Your task to perform on an android device: Go to Android settings Image 0: 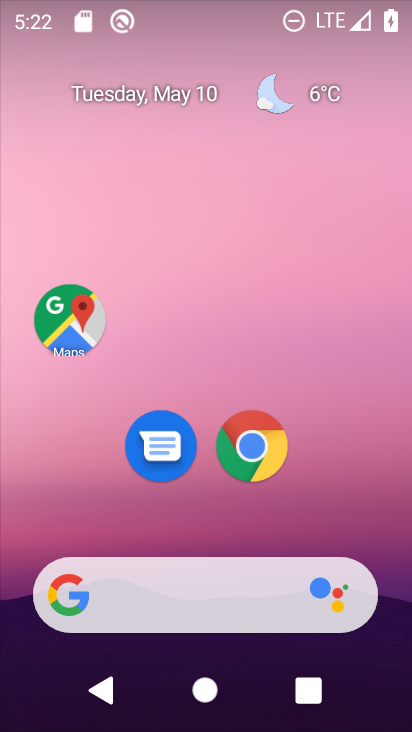
Step 0: drag from (233, 513) to (211, 113)
Your task to perform on an android device: Go to Android settings Image 1: 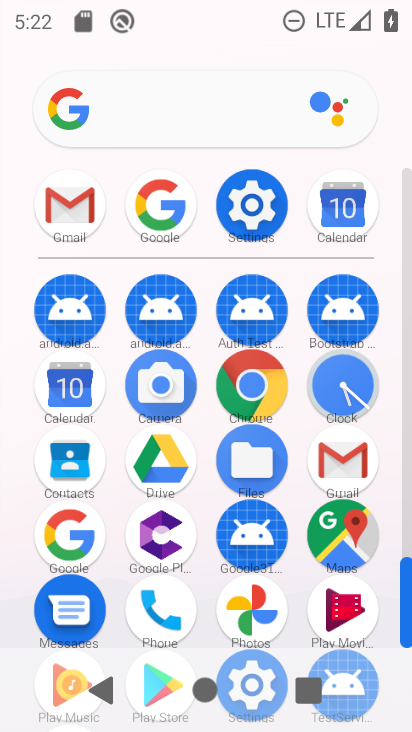
Step 1: click (257, 221)
Your task to perform on an android device: Go to Android settings Image 2: 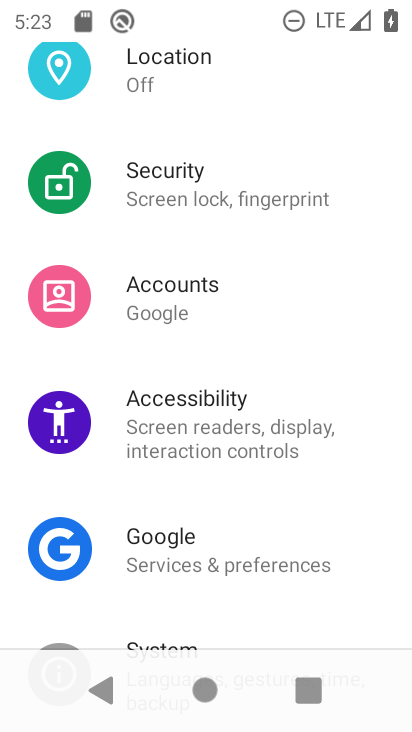
Step 2: drag from (214, 522) to (184, 2)
Your task to perform on an android device: Go to Android settings Image 3: 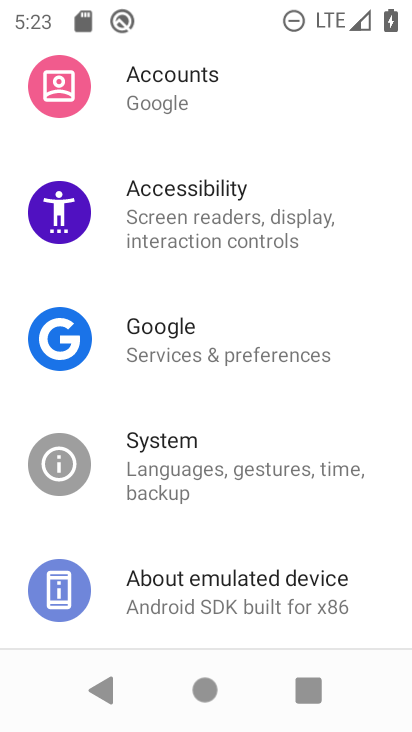
Step 3: drag from (222, 537) to (207, 355)
Your task to perform on an android device: Go to Android settings Image 4: 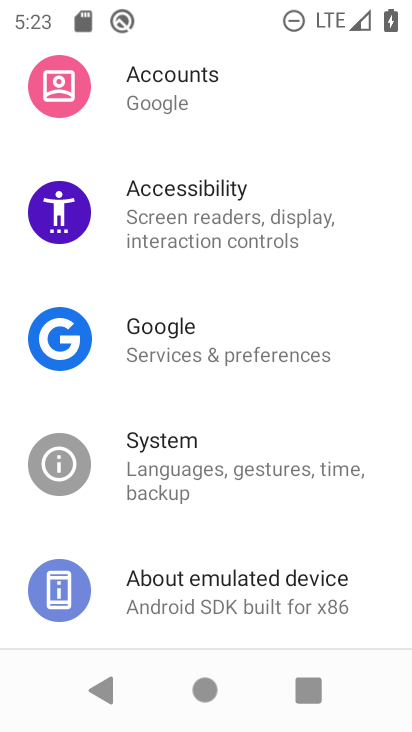
Step 4: click (212, 565)
Your task to perform on an android device: Go to Android settings Image 5: 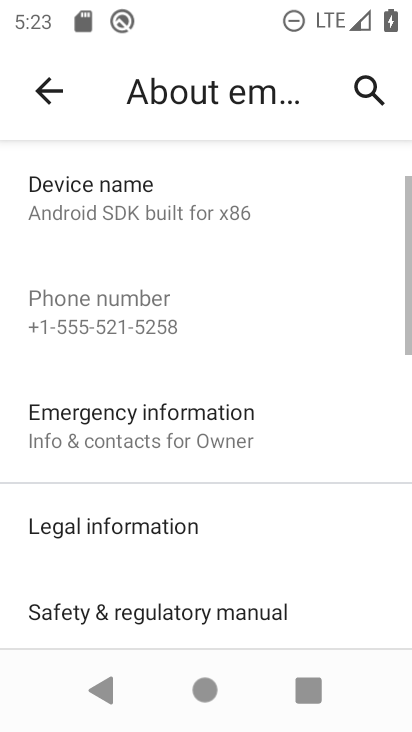
Step 5: drag from (212, 575) to (203, 122)
Your task to perform on an android device: Go to Android settings Image 6: 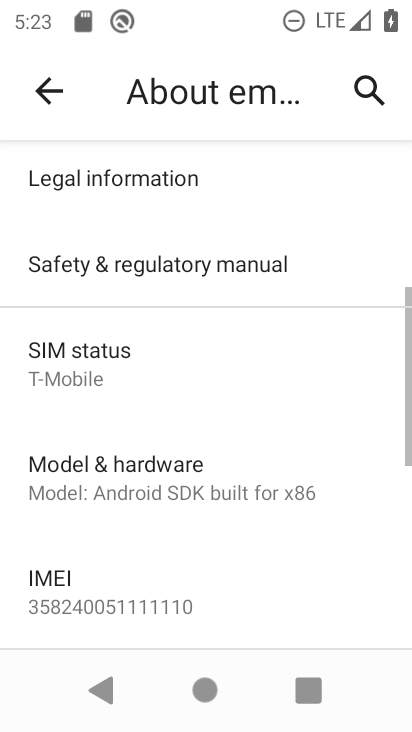
Step 6: drag from (196, 589) to (185, 246)
Your task to perform on an android device: Go to Android settings Image 7: 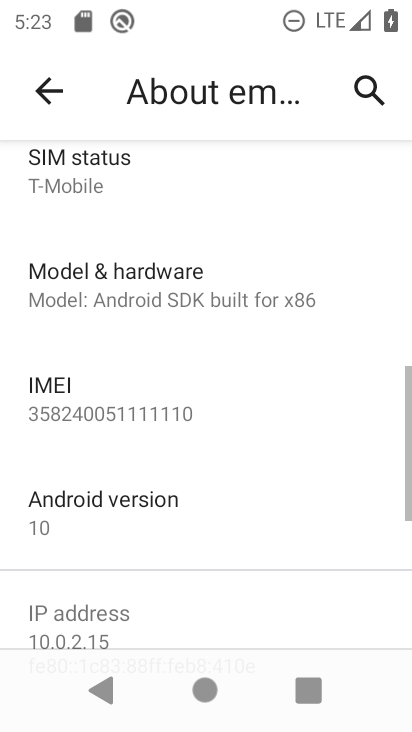
Step 7: click (152, 515)
Your task to perform on an android device: Go to Android settings Image 8: 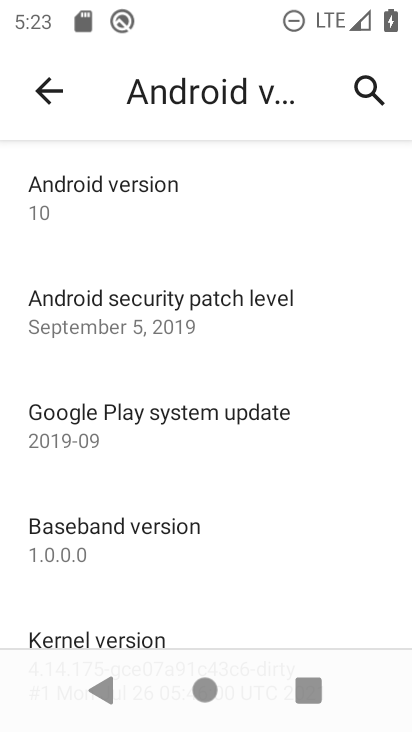
Step 8: task complete